Your task to perform on an android device: toggle wifi Image 0: 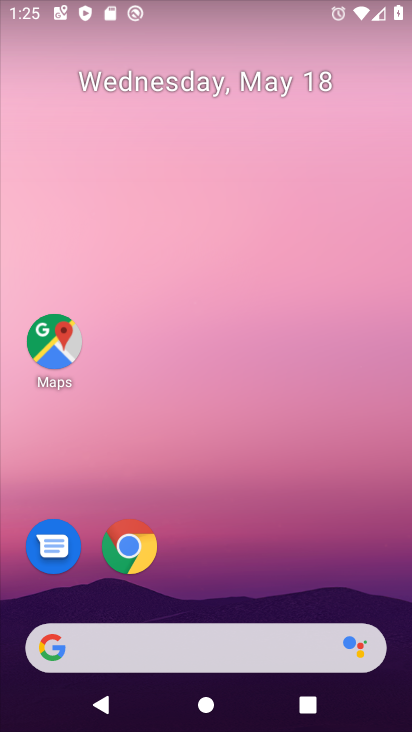
Step 0: drag from (213, 649) to (302, 250)
Your task to perform on an android device: toggle wifi Image 1: 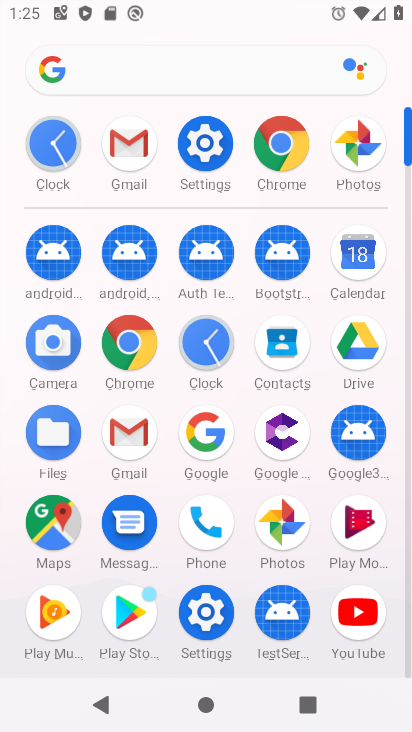
Step 1: click (209, 178)
Your task to perform on an android device: toggle wifi Image 2: 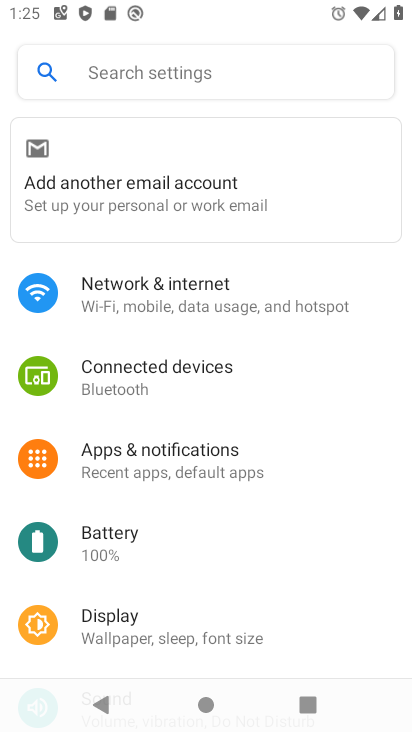
Step 2: click (191, 286)
Your task to perform on an android device: toggle wifi Image 3: 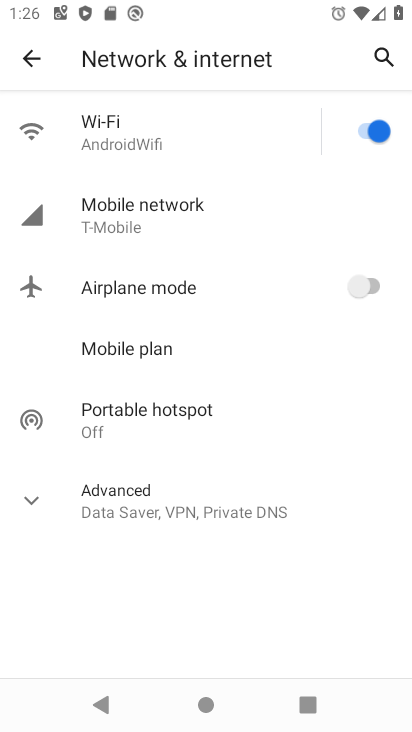
Step 3: click (360, 136)
Your task to perform on an android device: toggle wifi Image 4: 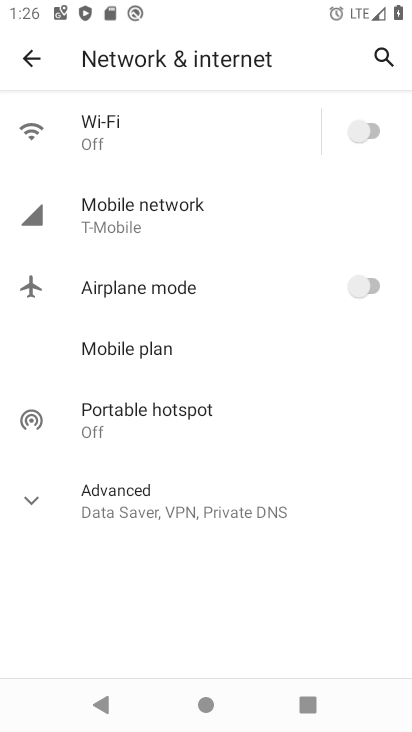
Step 4: task complete